Your task to perform on an android device: Go to location settings Image 0: 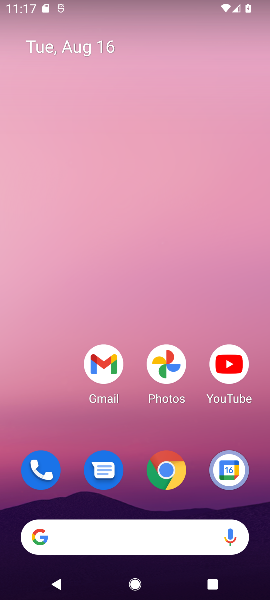
Step 0: drag from (49, 378) to (118, 5)
Your task to perform on an android device: Go to location settings Image 1: 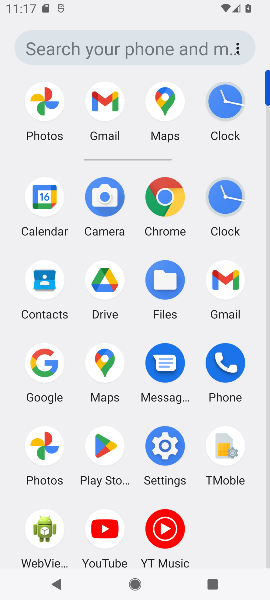
Step 1: click (170, 438)
Your task to perform on an android device: Go to location settings Image 2: 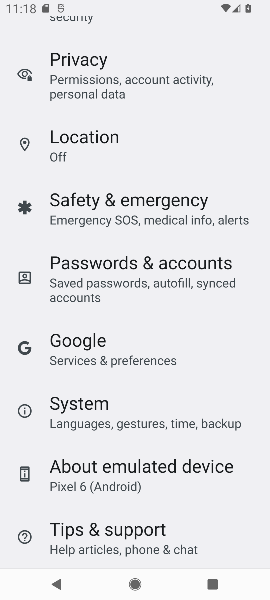
Step 2: click (119, 141)
Your task to perform on an android device: Go to location settings Image 3: 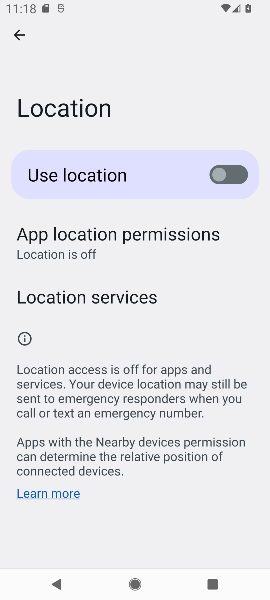
Step 3: task complete